Your task to perform on an android device: Go to ESPN.com Image 0: 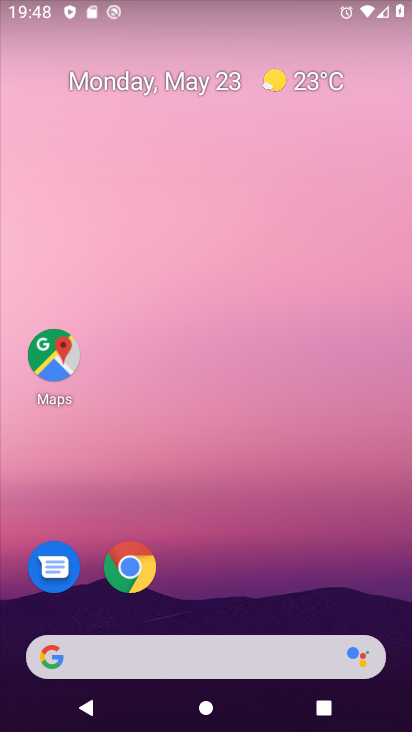
Step 0: click (133, 578)
Your task to perform on an android device: Go to ESPN.com Image 1: 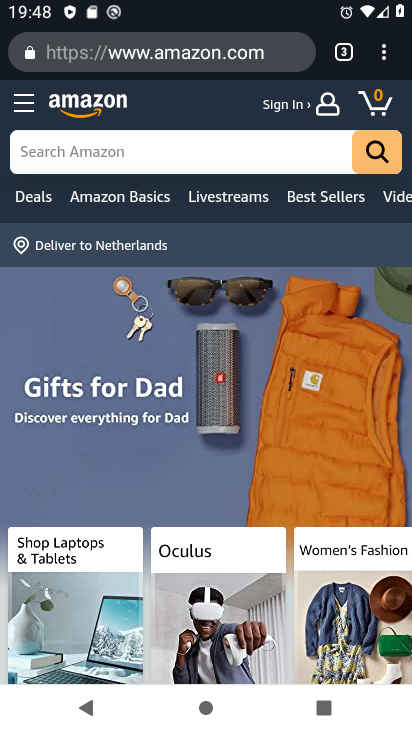
Step 1: click (376, 55)
Your task to perform on an android device: Go to ESPN.com Image 2: 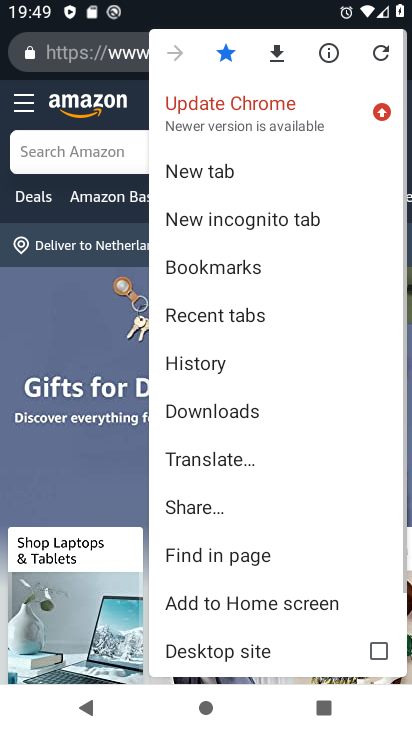
Step 2: click (212, 174)
Your task to perform on an android device: Go to ESPN.com Image 3: 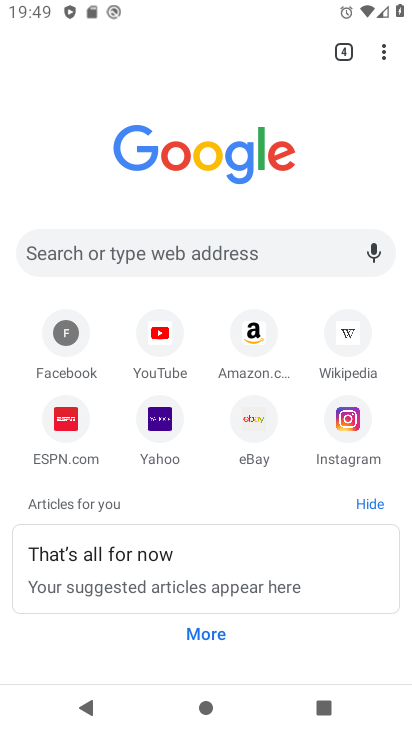
Step 3: click (67, 426)
Your task to perform on an android device: Go to ESPN.com Image 4: 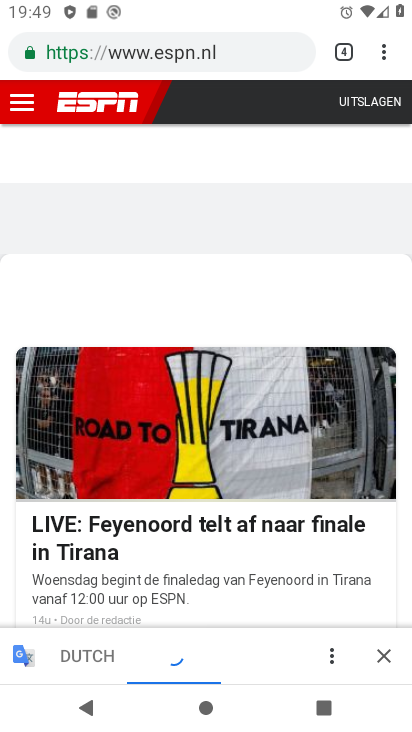
Step 4: click (390, 653)
Your task to perform on an android device: Go to ESPN.com Image 5: 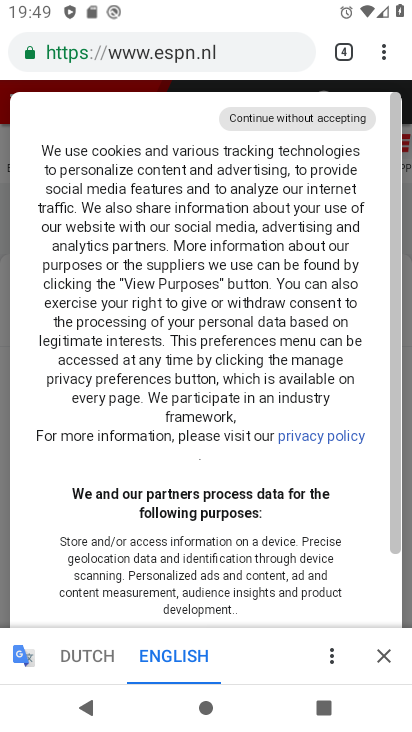
Step 5: click (388, 643)
Your task to perform on an android device: Go to ESPN.com Image 6: 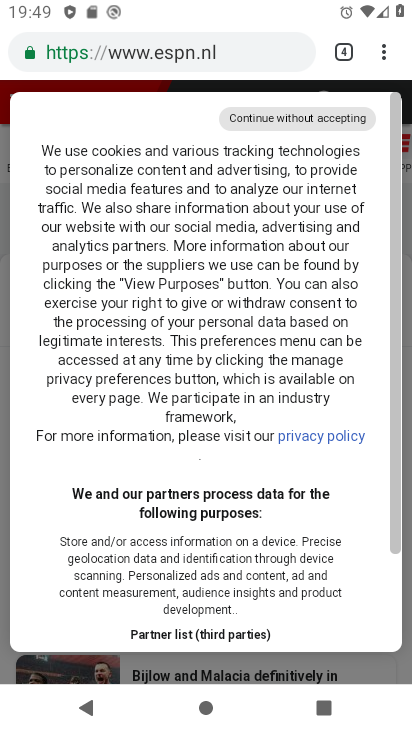
Step 6: task complete